Your task to perform on an android device: change notification settings in the gmail app Image 0: 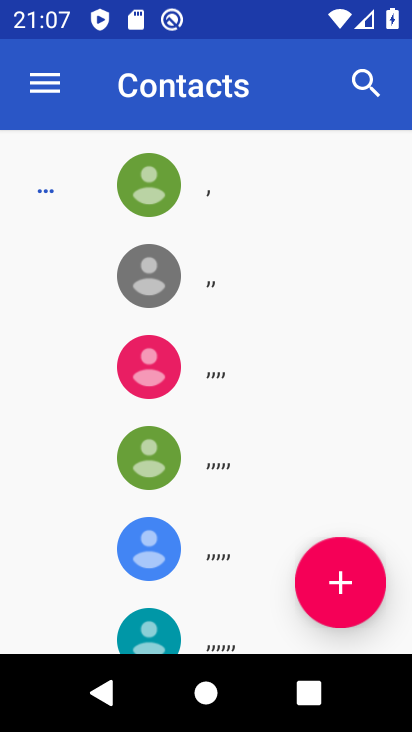
Step 0: press home button
Your task to perform on an android device: change notification settings in the gmail app Image 1: 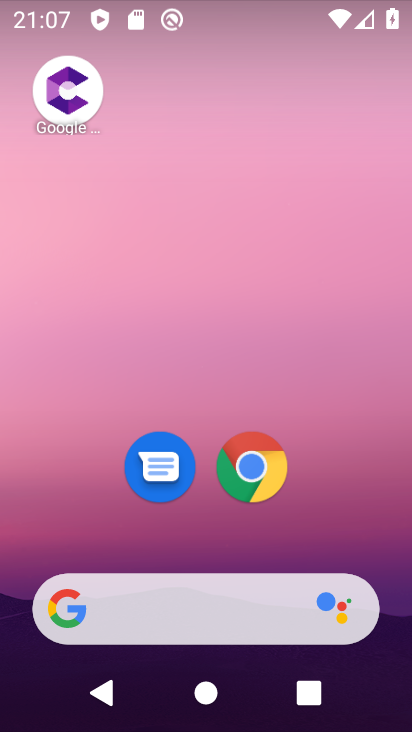
Step 1: drag from (351, 461) to (346, 79)
Your task to perform on an android device: change notification settings in the gmail app Image 2: 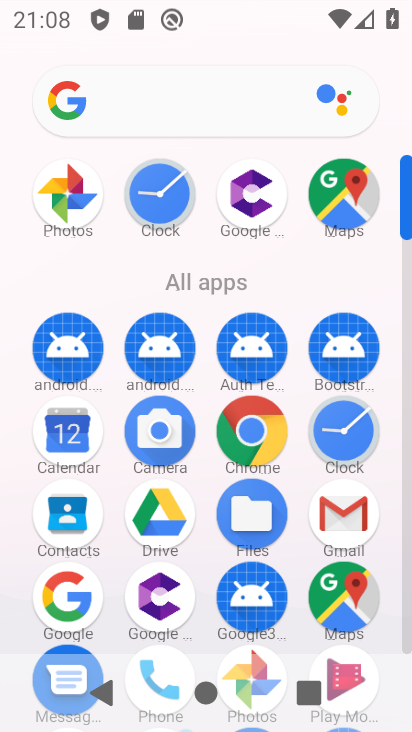
Step 2: click (333, 502)
Your task to perform on an android device: change notification settings in the gmail app Image 3: 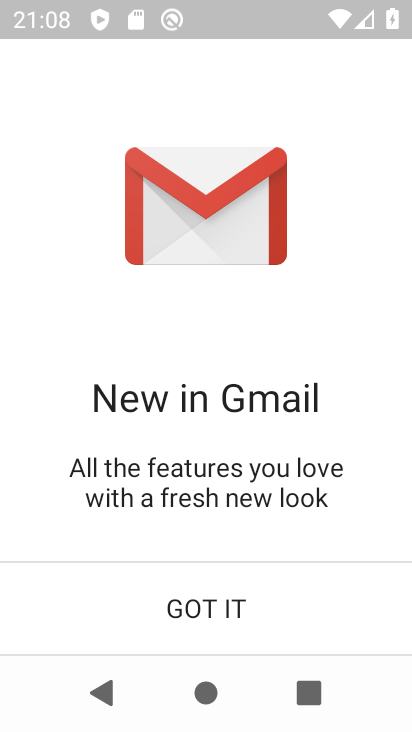
Step 3: click (170, 601)
Your task to perform on an android device: change notification settings in the gmail app Image 4: 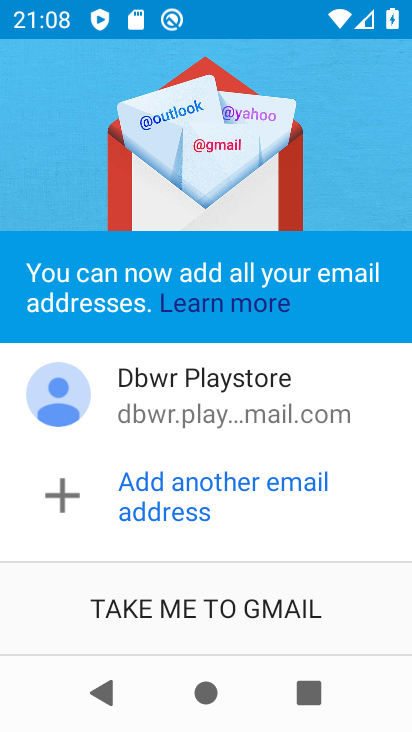
Step 4: click (260, 606)
Your task to perform on an android device: change notification settings in the gmail app Image 5: 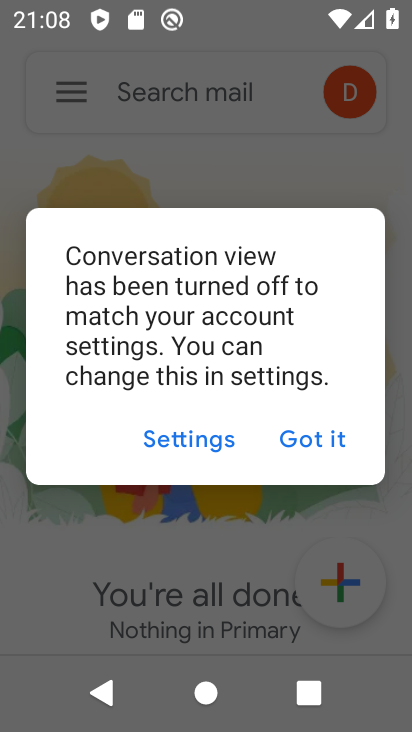
Step 5: click (326, 436)
Your task to perform on an android device: change notification settings in the gmail app Image 6: 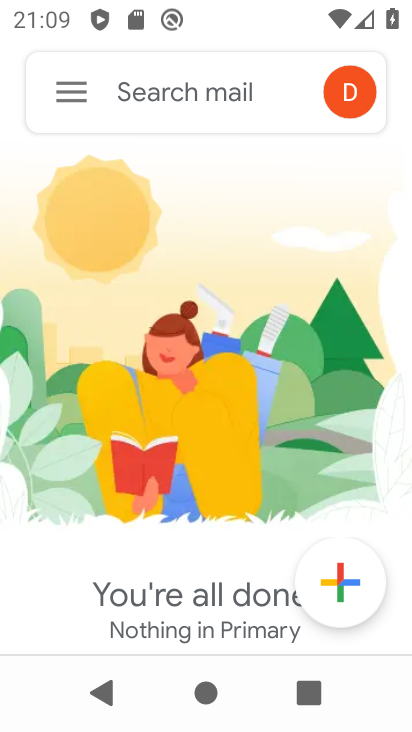
Step 6: click (66, 88)
Your task to perform on an android device: change notification settings in the gmail app Image 7: 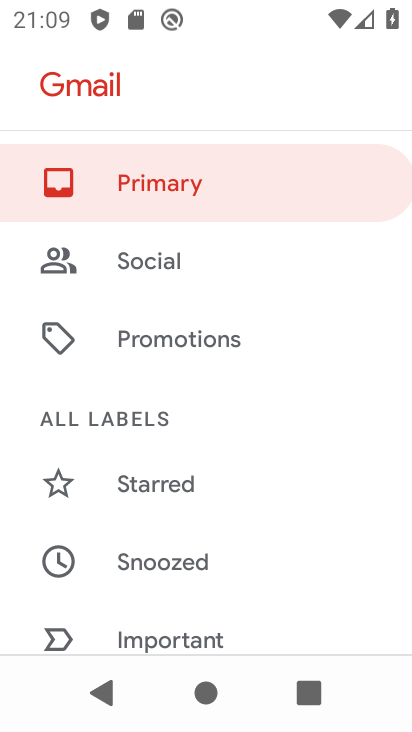
Step 7: drag from (166, 579) to (262, 123)
Your task to perform on an android device: change notification settings in the gmail app Image 8: 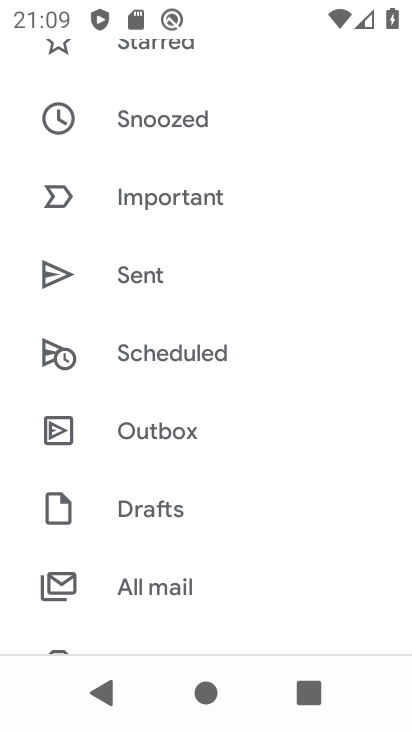
Step 8: drag from (213, 500) to (263, 108)
Your task to perform on an android device: change notification settings in the gmail app Image 9: 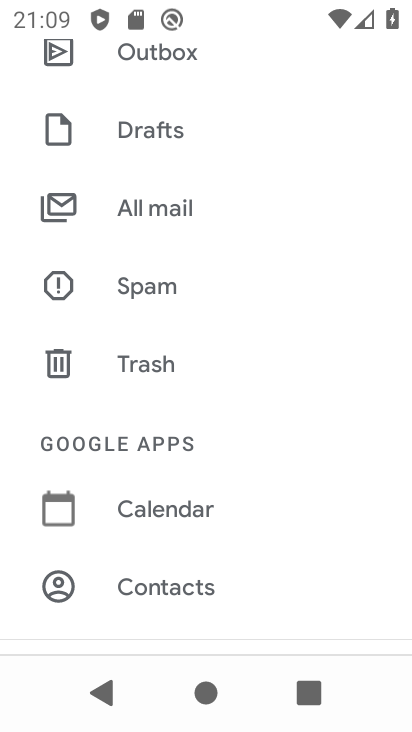
Step 9: drag from (280, 505) to (252, 20)
Your task to perform on an android device: change notification settings in the gmail app Image 10: 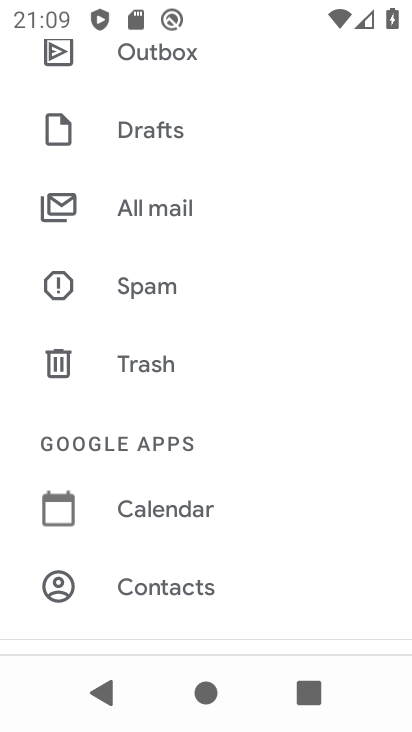
Step 10: drag from (165, 533) to (260, 52)
Your task to perform on an android device: change notification settings in the gmail app Image 11: 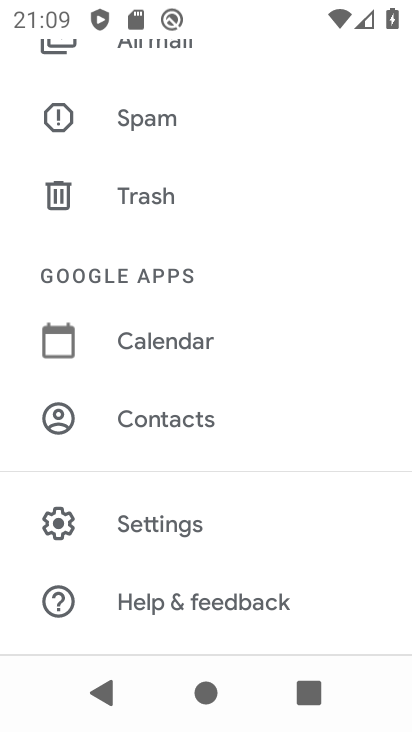
Step 11: click (186, 511)
Your task to perform on an android device: change notification settings in the gmail app Image 12: 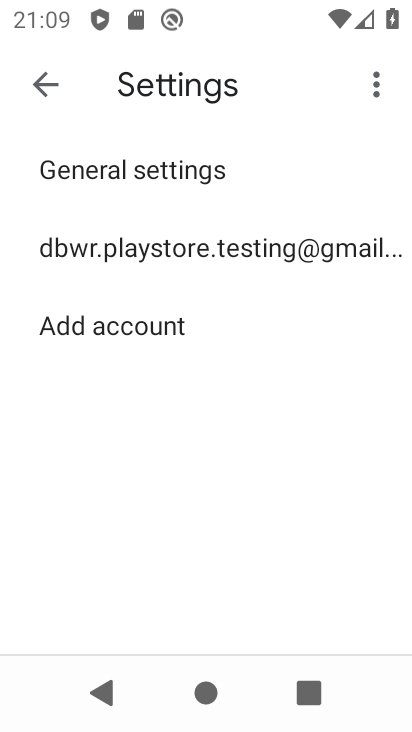
Step 12: click (244, 238)
Your task to perform on an android device: change notification settings in the gmail app Image 13: 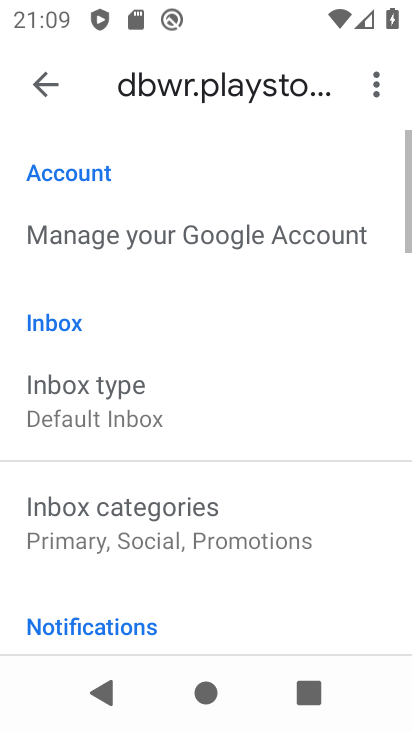
Step 13: drag from (221, 515) to (288, 100)
Your task to perform on an android device: change notification settings in the gmail app Image 14: 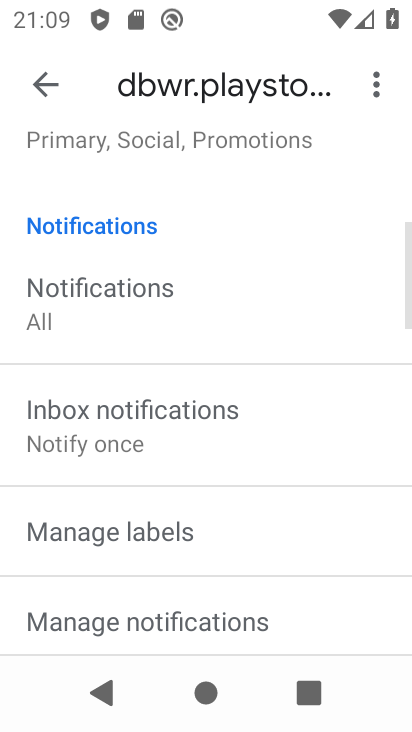
Step 14: drag from (199, 454) to (265, 148)
Your task to perform on an android device: change notification settings in the gmail app Image 15: 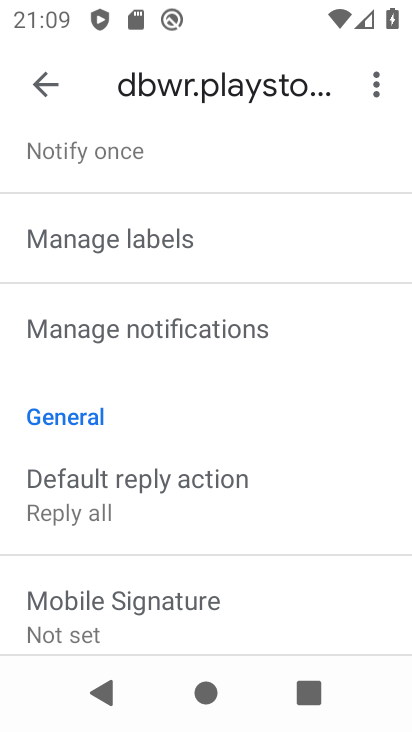
Step 15: drag from (238, 558) to (293, 127)
Your task to perform on an android device: change notification settings in the gmail app Image 16: 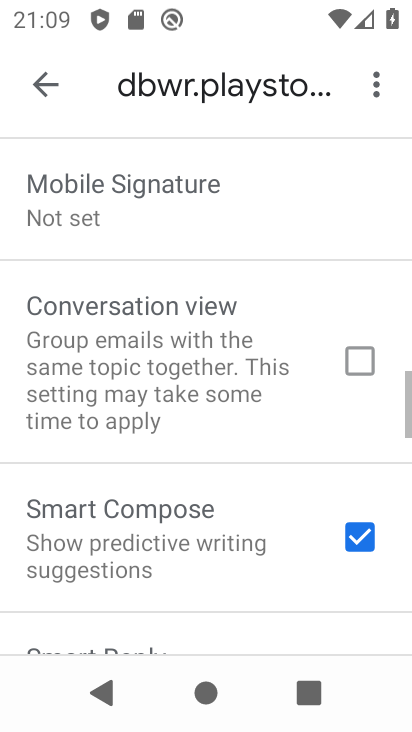
Step 16: drag from (214, 572) to (276, 220)
Your task to perform on an android device: change notification settings in the gmail app Image 17: 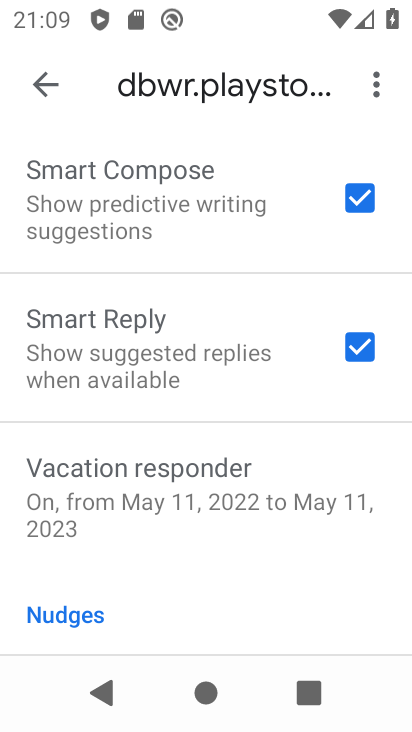
Step 17: drag from (236, 561) to (280, 49)
Your task to perform on an android device: change notification settings in the gmail app Image 18: 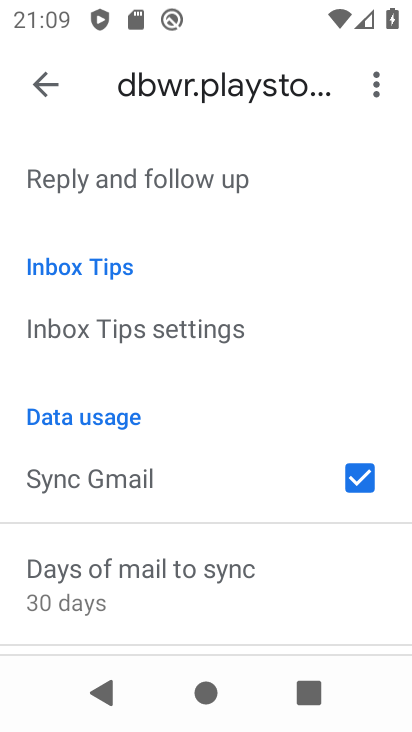
Step 18: drag from (231, 186) to (264, 660)
Your task to perform on an android device: change notification settings in the gmail app Image 19: 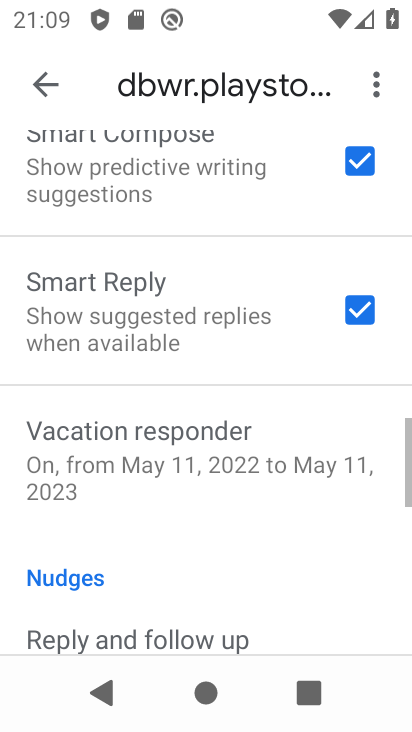
Step 19: drag from (231, 227) to (271, 622)
Your task to perform on an android device: change notification settings in the gmail app Image 20: 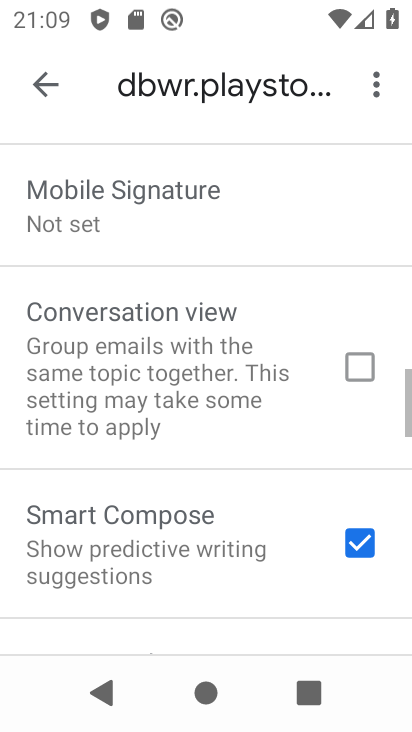
Step 20: drag from (246, 258) to (274, 627)
Your task to perform on an android device: change notification settings in the gmail app Image 21: 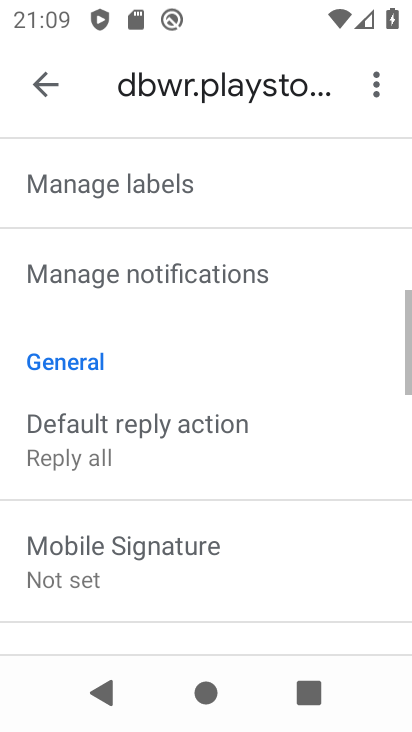
Step 21: drag from (224, 226) to (242, 597)
Your task to perform on an android device: change notification settings in the gmail app Image 22: 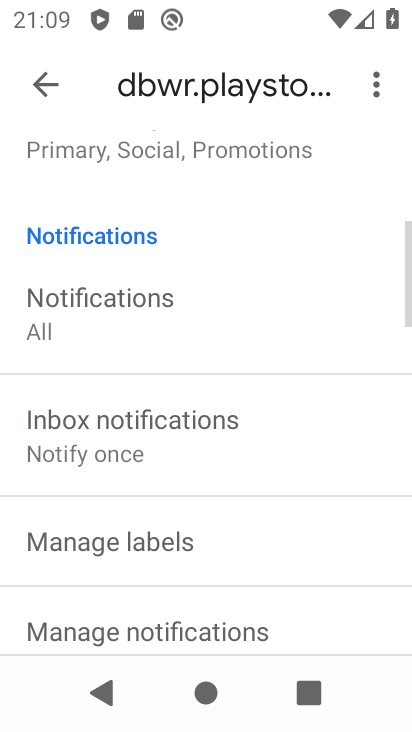
Step 22: drag from (203, 479) to (249, 244)
Your task to perform on an android device: change notification settings in the gmail app Image 23: 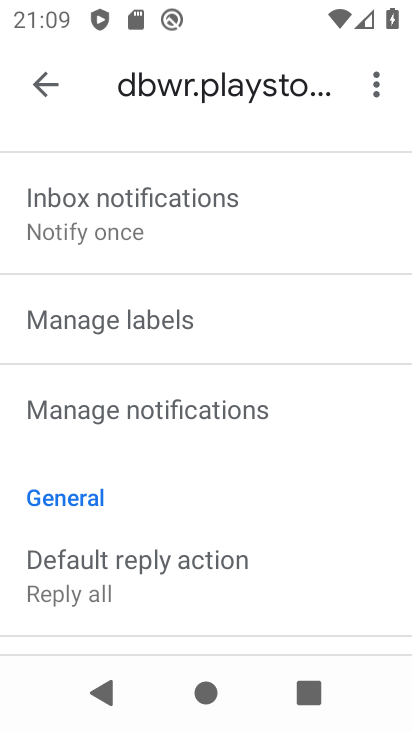
Step 23: click (186, 416)
Your task to perform on an android device: change notification settings in the gmail app Image 24: 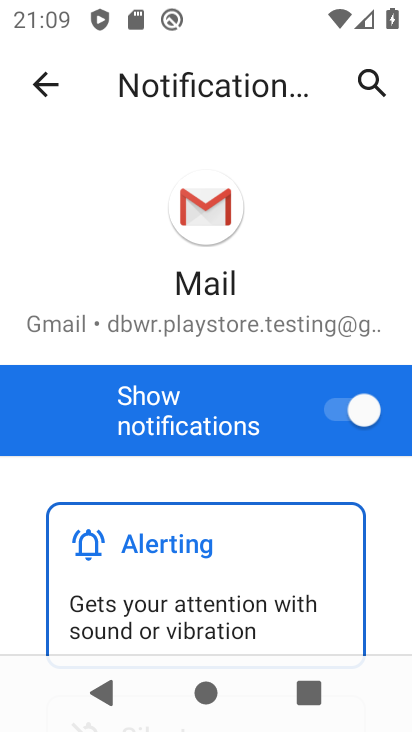
Step 24: click (335, 417)
Your task to perform on an android device: change notification settings in the gmail app Image 25: 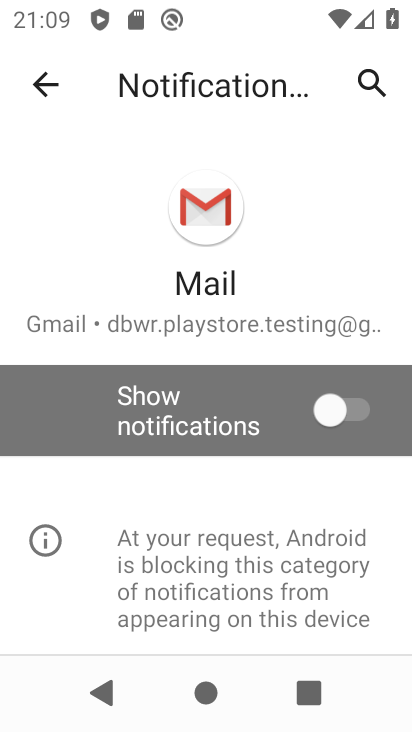
Step 25: task complete